Your task to perform on an android device: Search for the best coffee tables on Crate & Barrel Image 0: 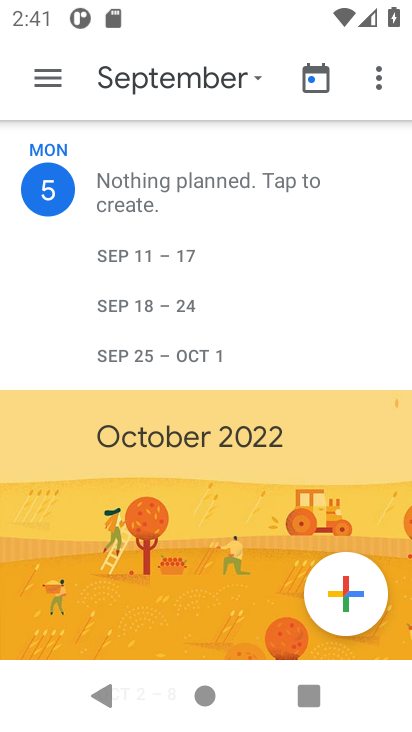
Step 0: press back button
Your task to perform on an android device: Search for the best coffee tables on Crate & Barrel Image 1: 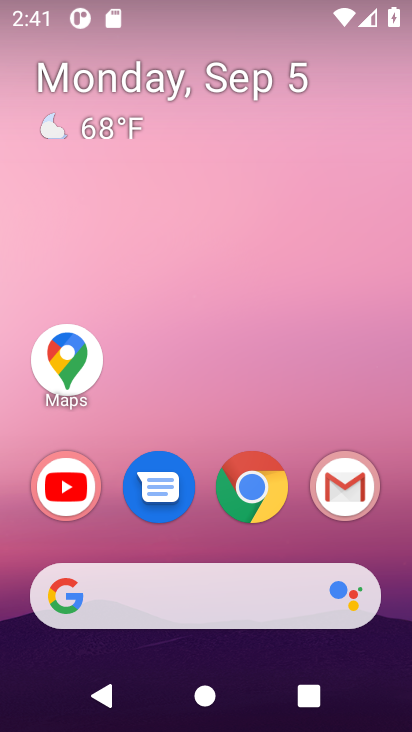
Step 1: click (249, 515)
Your task to perform on an android device: Search for the best coffee tables on Crate & Barrel Image 2: 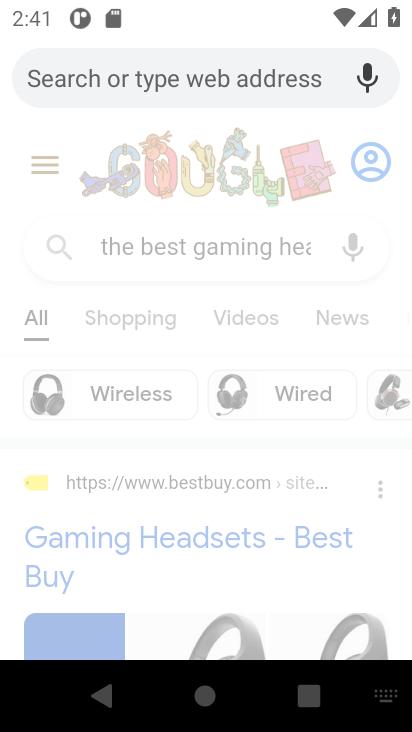
Step 2: type "the best coffee tables on Crate & Barrel"
Your task to perform on an android device: Search for the best coffee tables on Crate & Barrel Image 3: 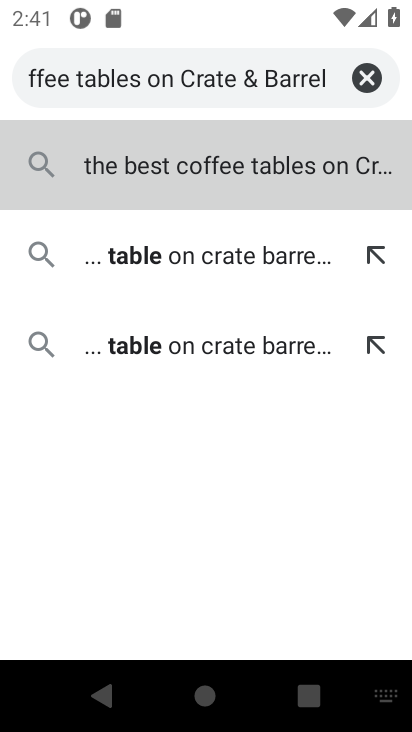
Step 3: click (218, 172)
Your task to perform on an android device: Search for the best coffee tables on Crate & Barrel Image 4: 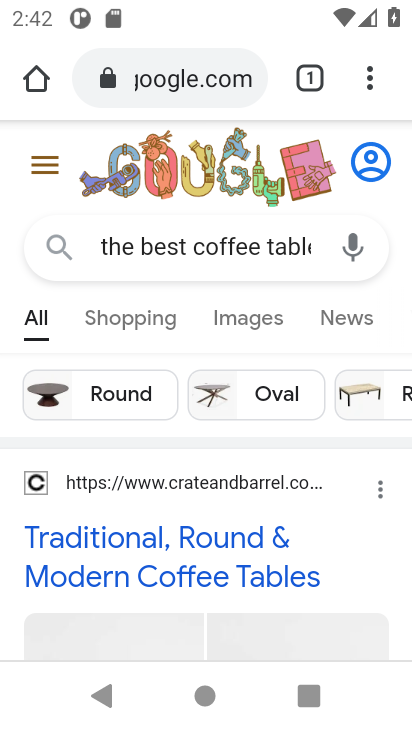
Step 4: click (6, 599)
Your task to perform on an android device: Search for the best coffee tables on Crate & Barrel Image 5: 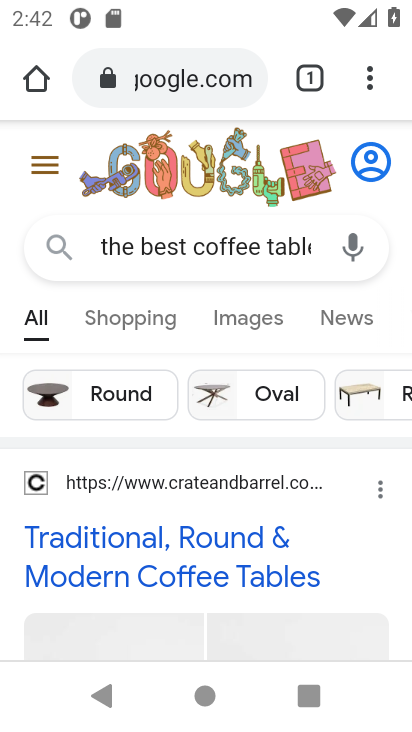
Step 5: task complete